Your task to perform on an android device: star an email in the gmail app Image 0: 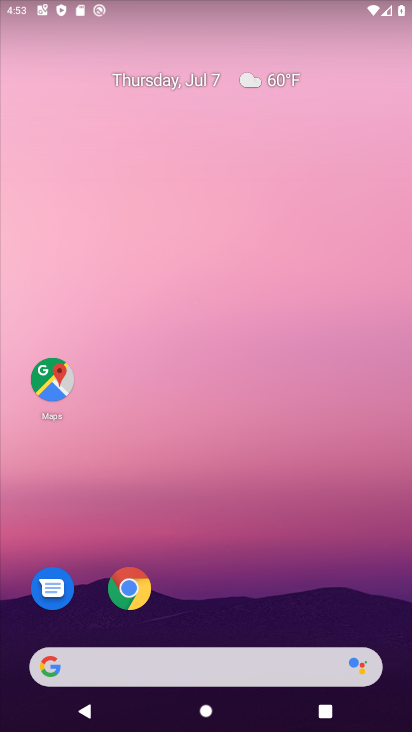
Step 0: drag from (215, 580) to (26, 388)
Your task to perform on an android device: star an email in the gmail app Image 1: 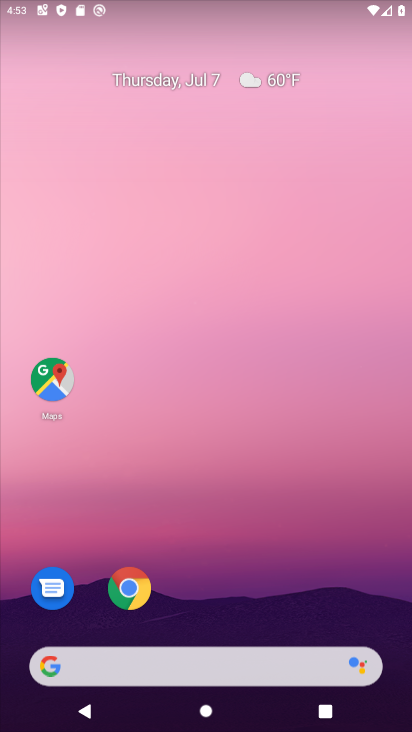
Step 1: click (193, 163)
Your task to perform on an android device: star an email in the gmail app Image 2: 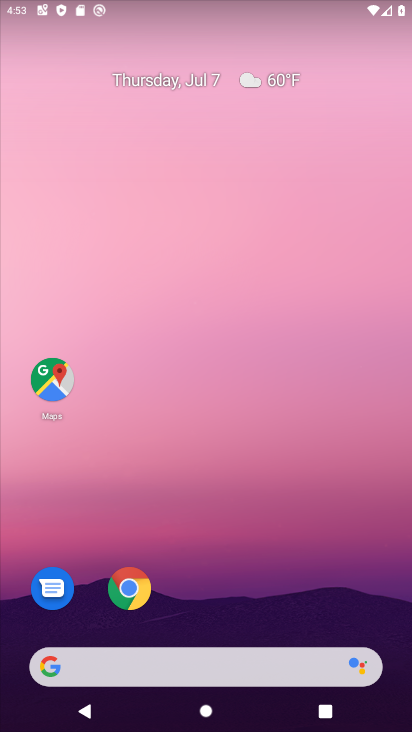
Step 2: drag from (238, 550) to (288, 12)
Your task to perform on an android device: star an email in the gmail app Image 3: 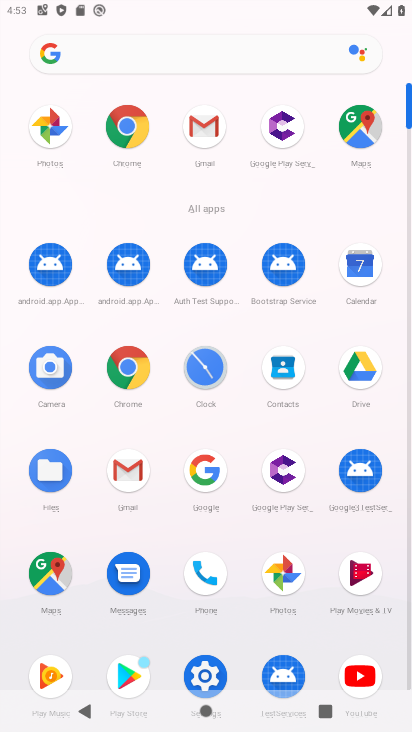
Step 3: click (212, 124)
Your task to perform on an android device: star an email in the gmail app Image 4: 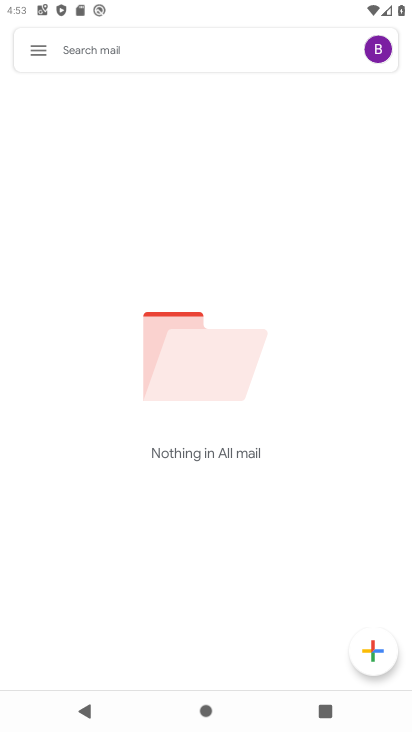
Step 4: task complete